Your task to perform on an android device: Go to network settings Image 0: 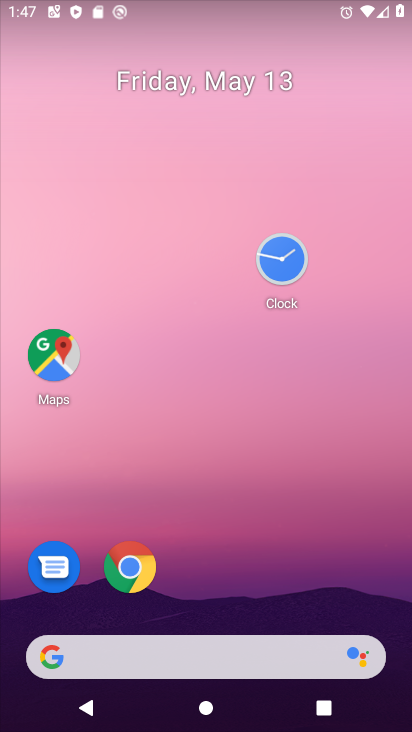
Step 0: drag from (283, 568) to (307, 9)
Your task to perform on an android device: Go to network settings Image 1: 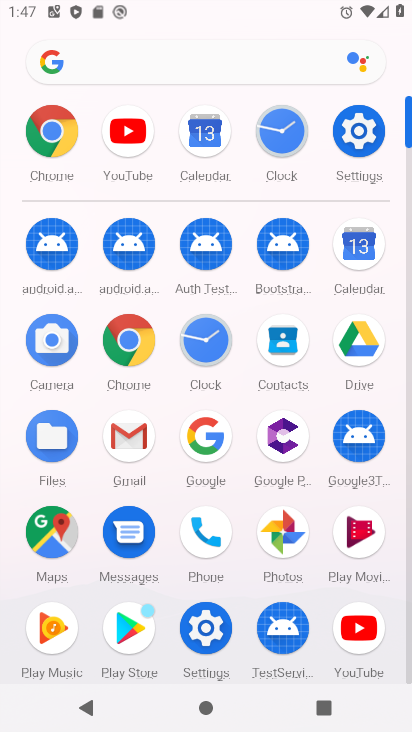
Step 1: click (367, 182)
Your task to perform on an android device: Go to network settings Image 2: 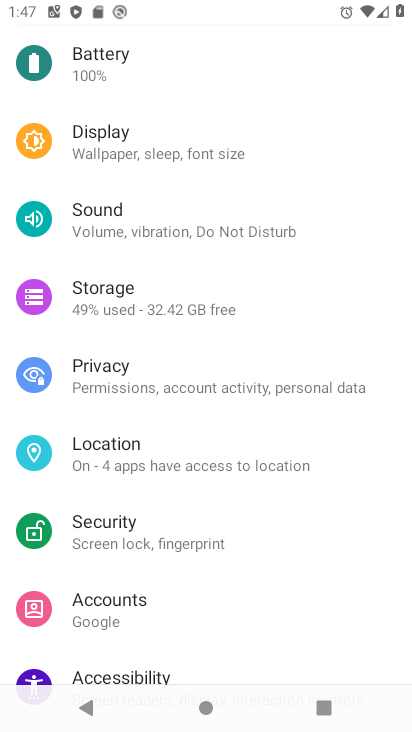
Step 2: drag from (165, 112) to (72, 660)
Your task to perform on an android device: Go to network settings Image 3: 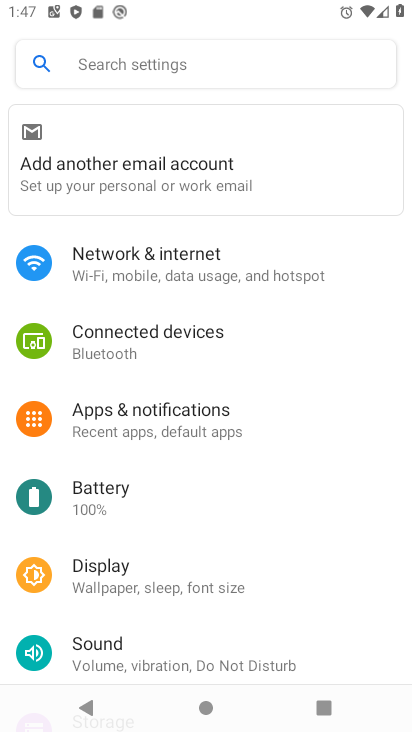
Step 3: click (170, 257)
Your task to perform on an android device: Go to network settings Image 4: 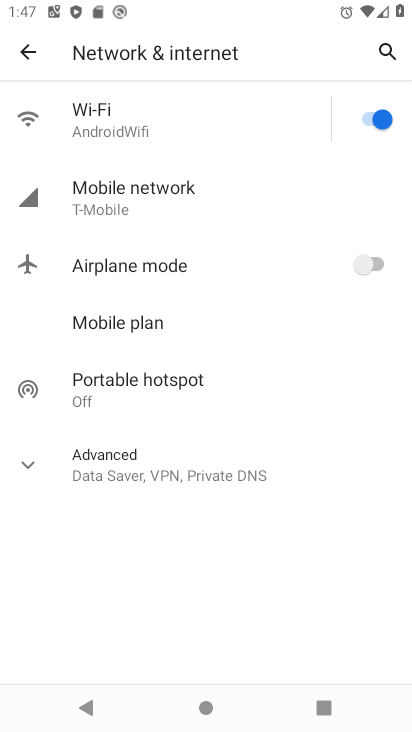
Step 4: click (143, 134)
Your task to perform on an android device: Go to network settings Image 5: 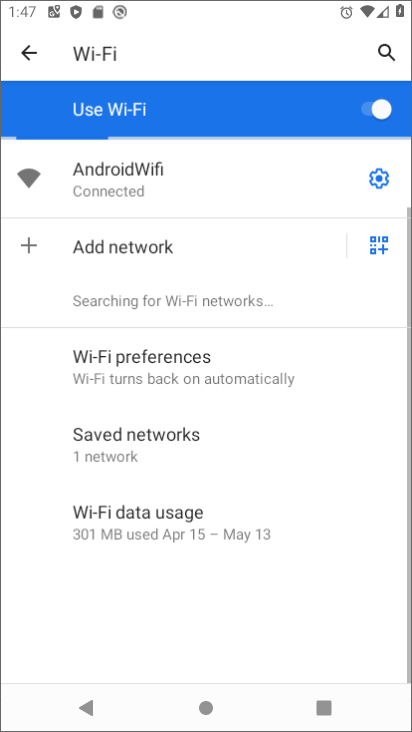
Step 5: task complete